Your task to perform on an android device: Open Youtube and go to "Your channel" Image 0: 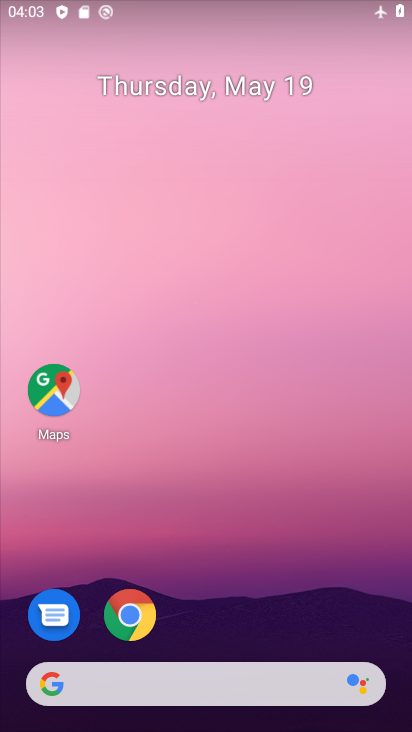
Step 0: click (213, 430)
Your task to perform on an android device: Open Youtube and go to "Your channel" Image 1: 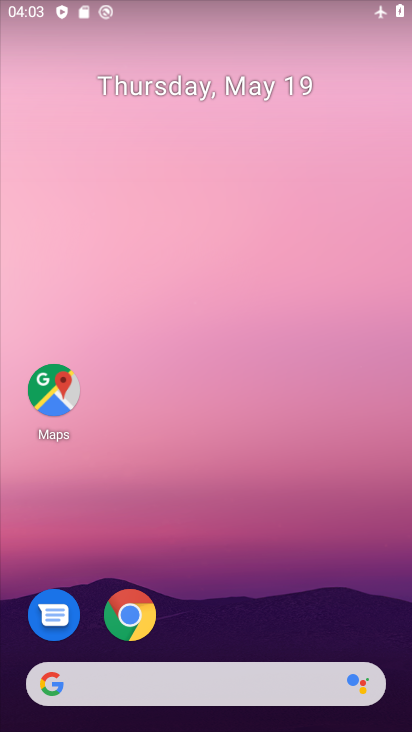
Step 1: drag from (277, 597) to (245, 21)
Your task to perform on an android device: Open Youtube and go to "Your channel" Image 2: 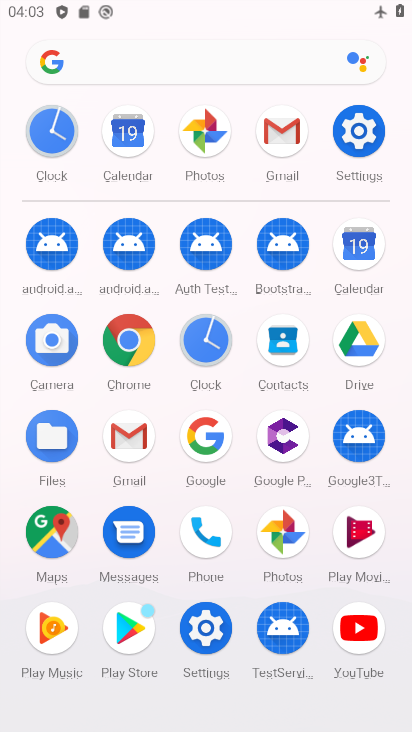
Step 2: click (368, 638)
Your task to perform on an android device: Open Youtube and go to "Your channel" Image 3: 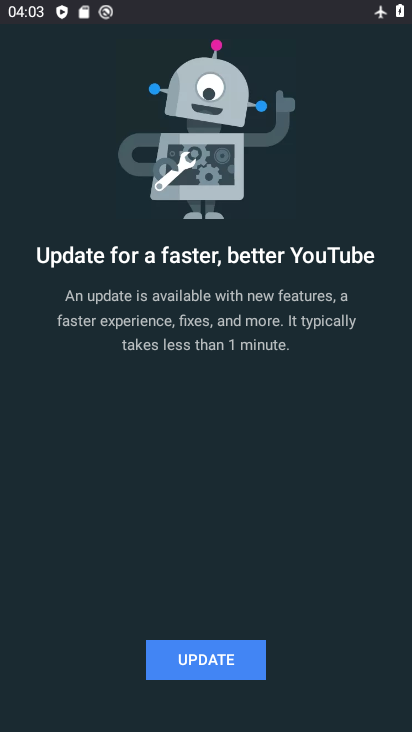
Step 3: click (212, 668)
Your task to perform on an android device: Open Youtube and go to "Your channel" Image 4: 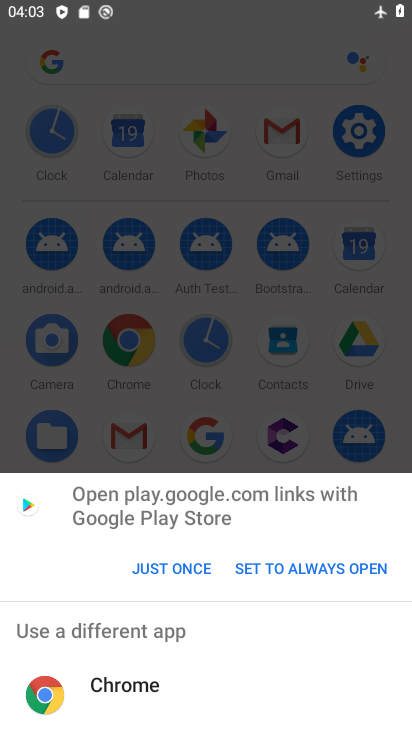
Step 4: click (180, 571)
Your task to perform on an android device: Open Youtube and go to "Your channel" Image 5: 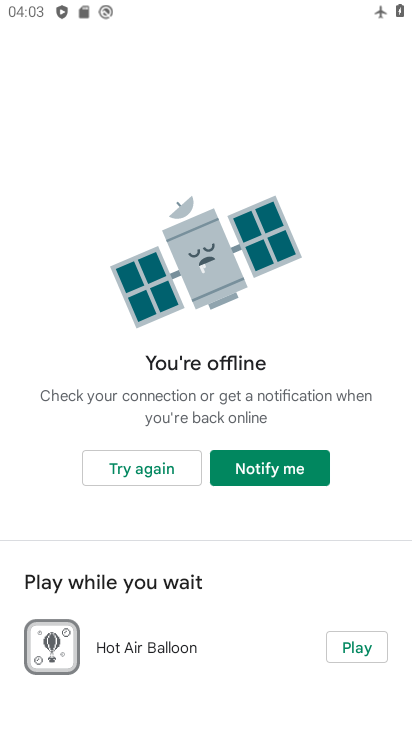
Step 5: task complete